Your task to perform on an android device: Find coffee shops on Maps Image 0: 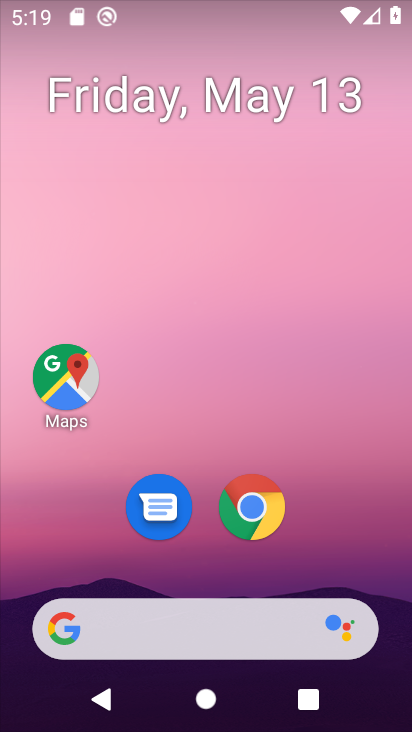
Step 0: click (75, 382)
Your task to perform on an android device: Find coffee shops on Maps Image 1: 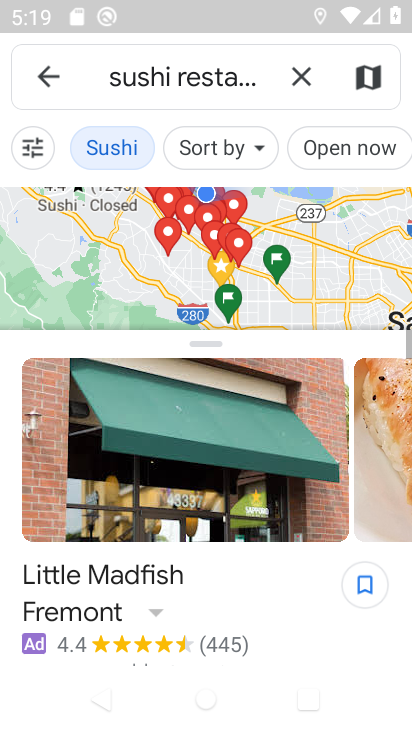
Step 1: click (290, 75)
Your task to perform on an android device: Find coffee shops on Maps Image 2: 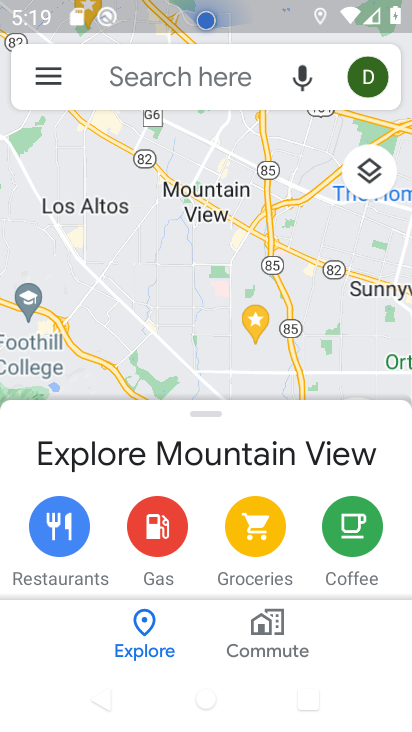
Step 2: click (154, 74)
Your task to perform on an android device: Find coffee shops on Maps Image 3: 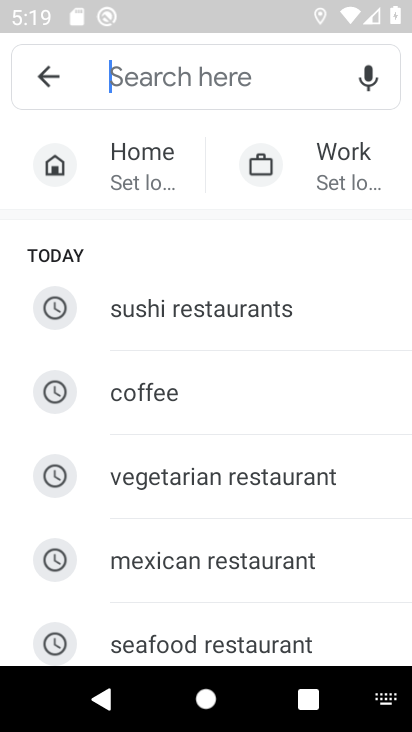
Step 3: click (221, 376)
Your task to perform on an android device: Find coffee shops on Maps Image 4: 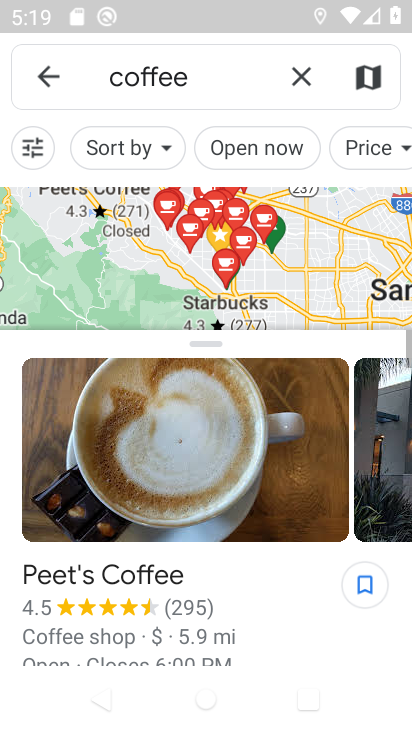
Step 4: task complete